Your task to perform on an android device: Open calendar and show me the second week of next month Image 0: 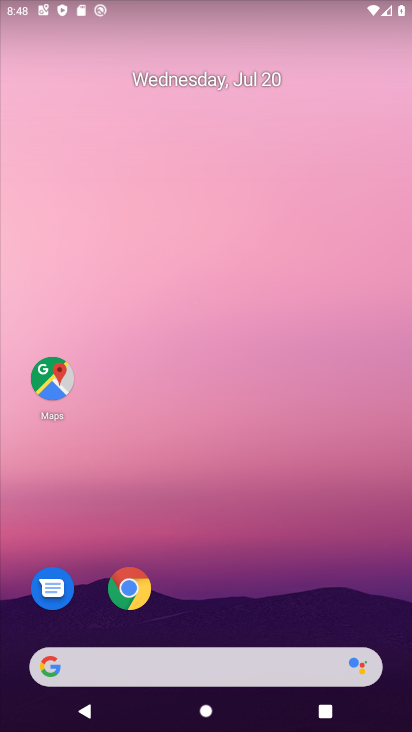
Step 0: click (192, 83)
Your task to perform on an android device: Open calendar and show me the second week of next month Image 1: 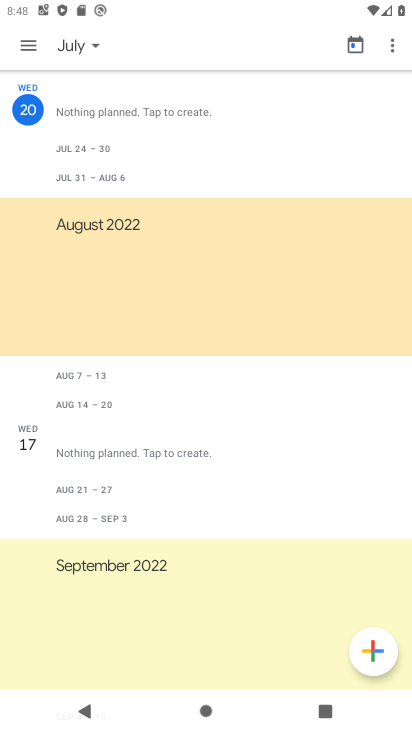
Step 1: click (100, 49)
Your task to perform on an android device: Open calendar and show me the second week of next month Image 2: 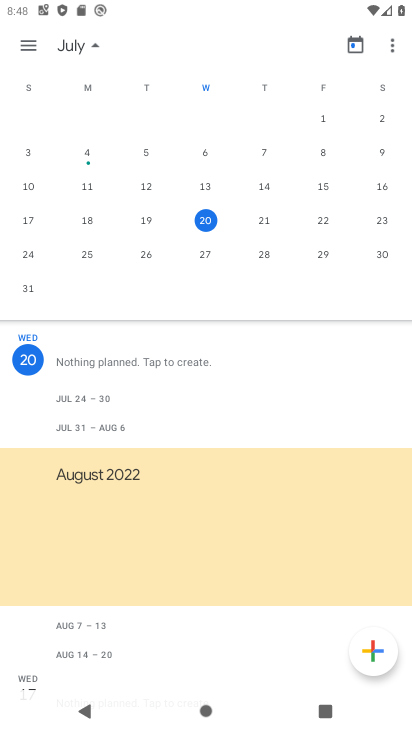
Step 2: drag from (352, 307) to (29, 230)
Your task to perform on an android device: Open calendar and show me the second week of next month Image 3: 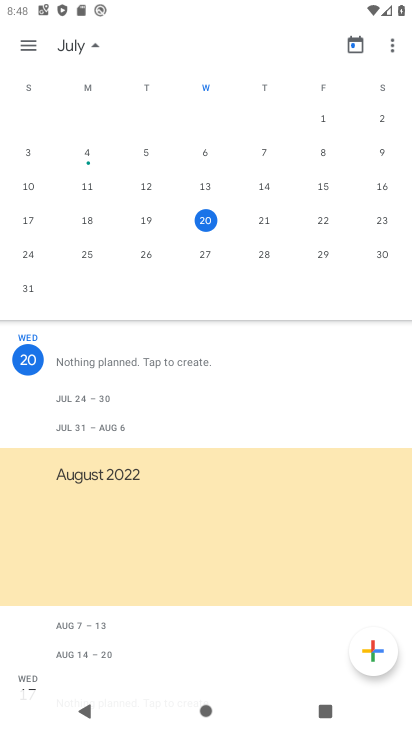
Step 3: drag from (377, 293) to (59, 290)
Your task to perform on an android device: Open calendar and show me the second week of next month Image 4: 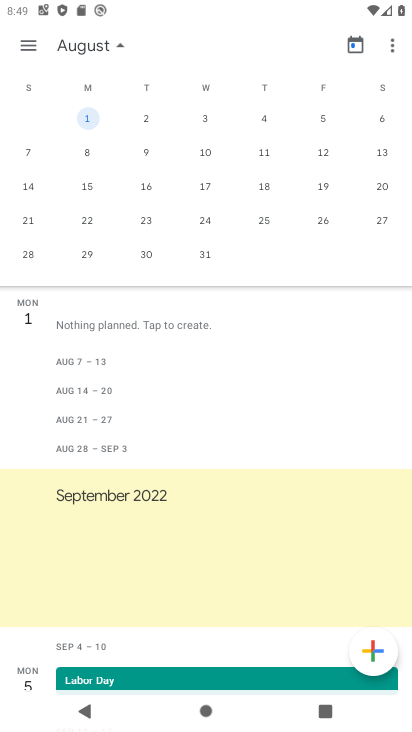
Step 4: click (216, 161)
Your task to perform on an android device: Open calendar and show me the second week of next month Image 5: 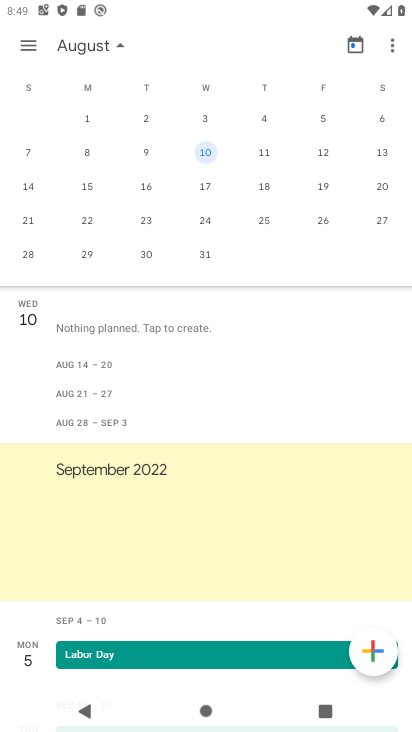
Step 5: task complete